Your task to perform on an android device: set the timer Image 0: 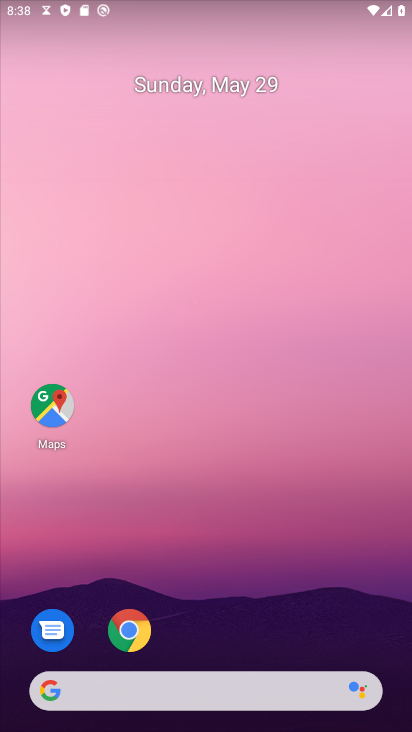
Step 0: drag from (246, 593) to (226, 275)
Your task to perform on an android device: set the timer Image 1: 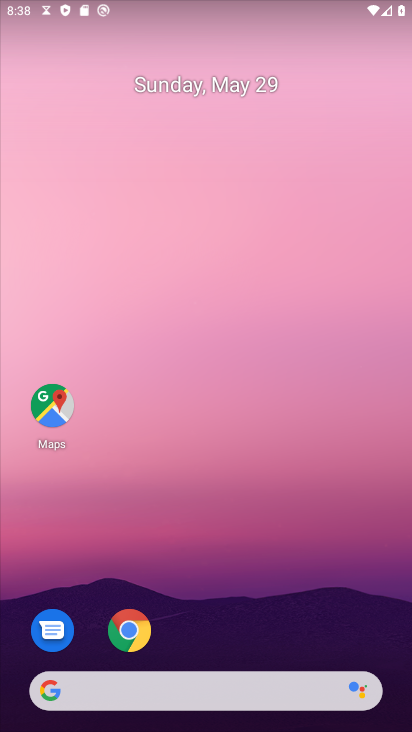
Step 1: drag from (269, 606) to (248, 178)
Your task to perform on an android device: set the timer Image 2: 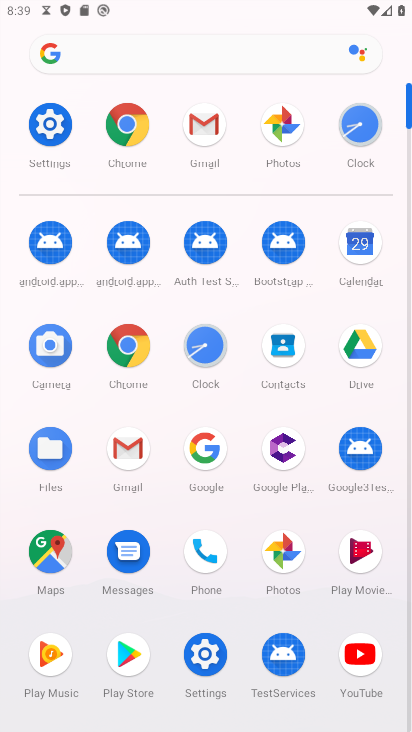
Step 2: click (358, 132)
Your task to perform on an android device: set the timer Image 3: 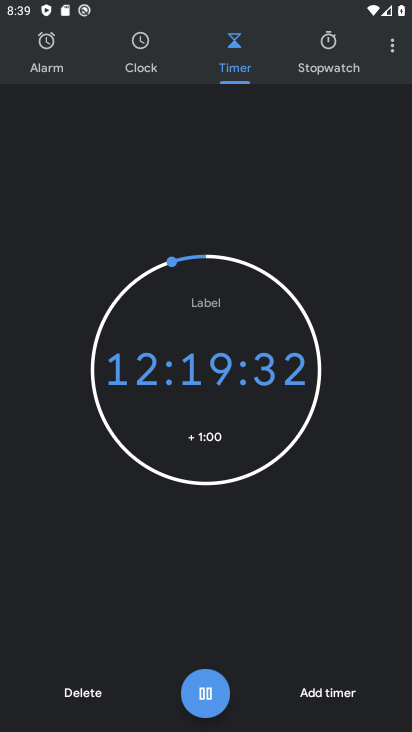
Step 3: task complete